Your task to perform on an android device: What's the weather? Image 0: 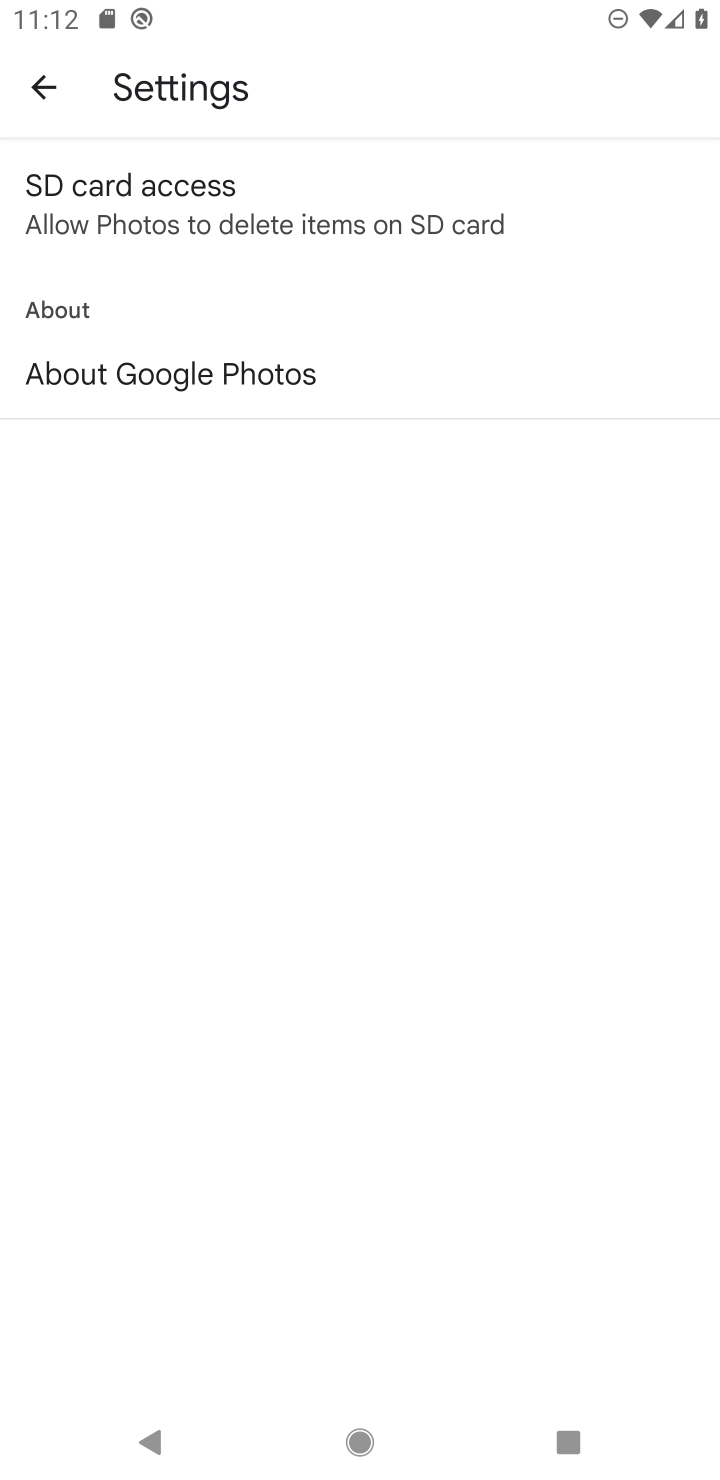
Step 0: click (437, 301)
Your task to perform on an android device: What's the weather? Image 1: 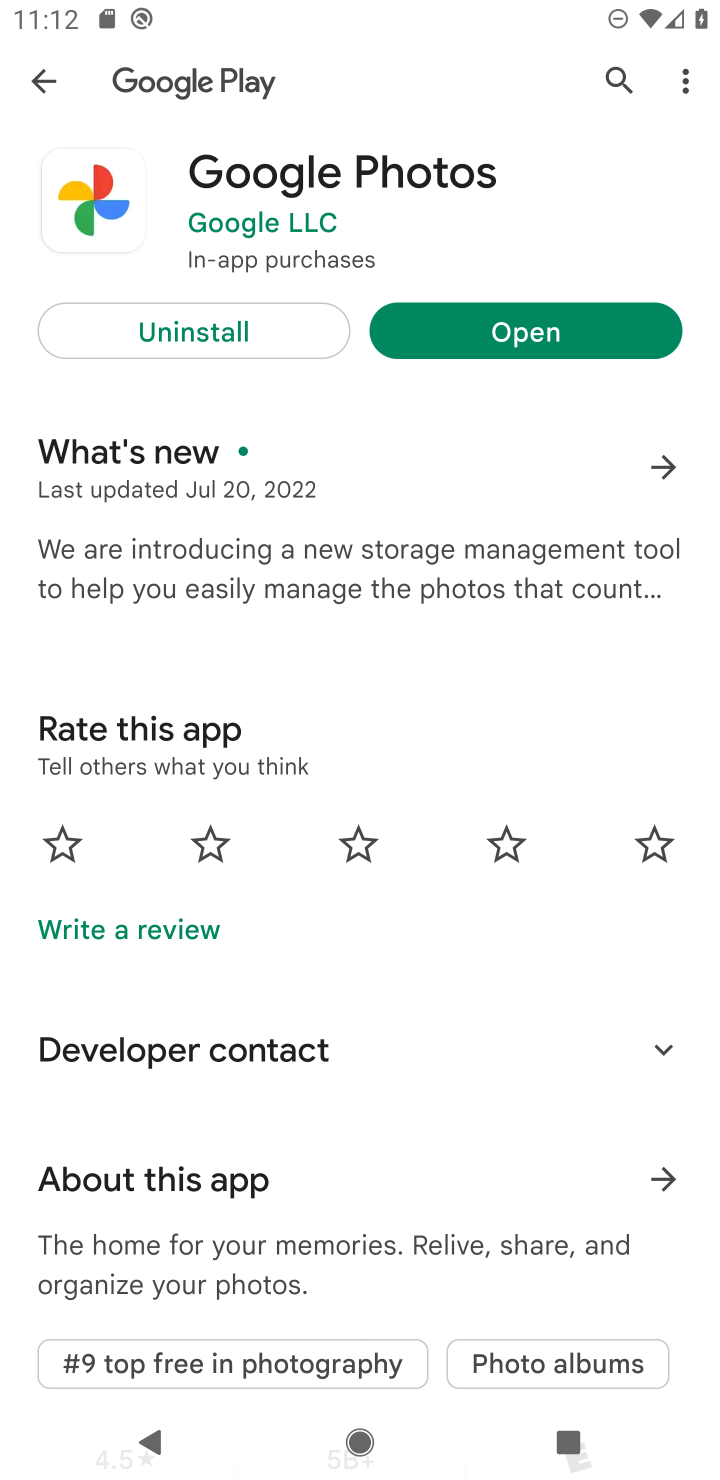
Step 1: drag from (446, 864) to (531, 282)
Your task to perform on an android device: What's the weather? Image 2: 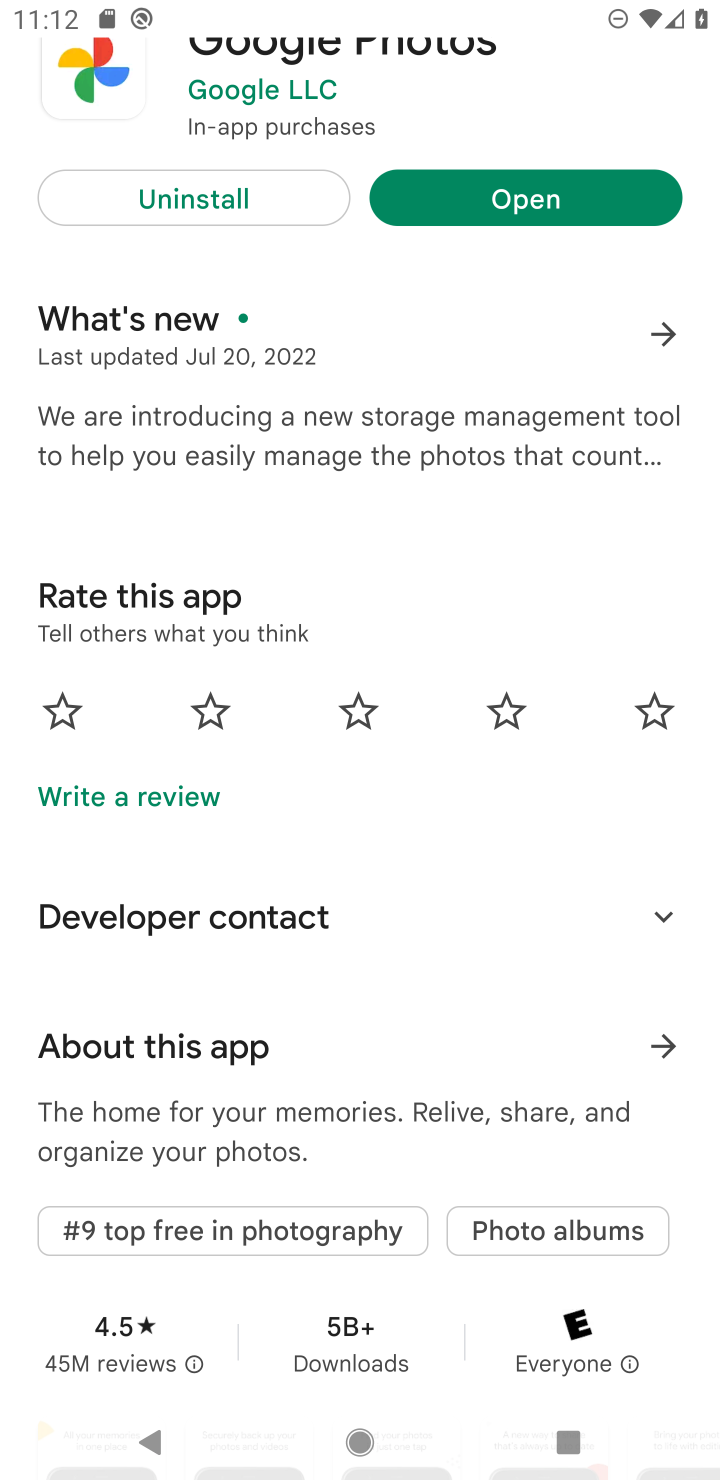
Step 2: drag from (363, 478) to (709, 1319)
Your task to perform on an android device: What's the weather? Image 3: 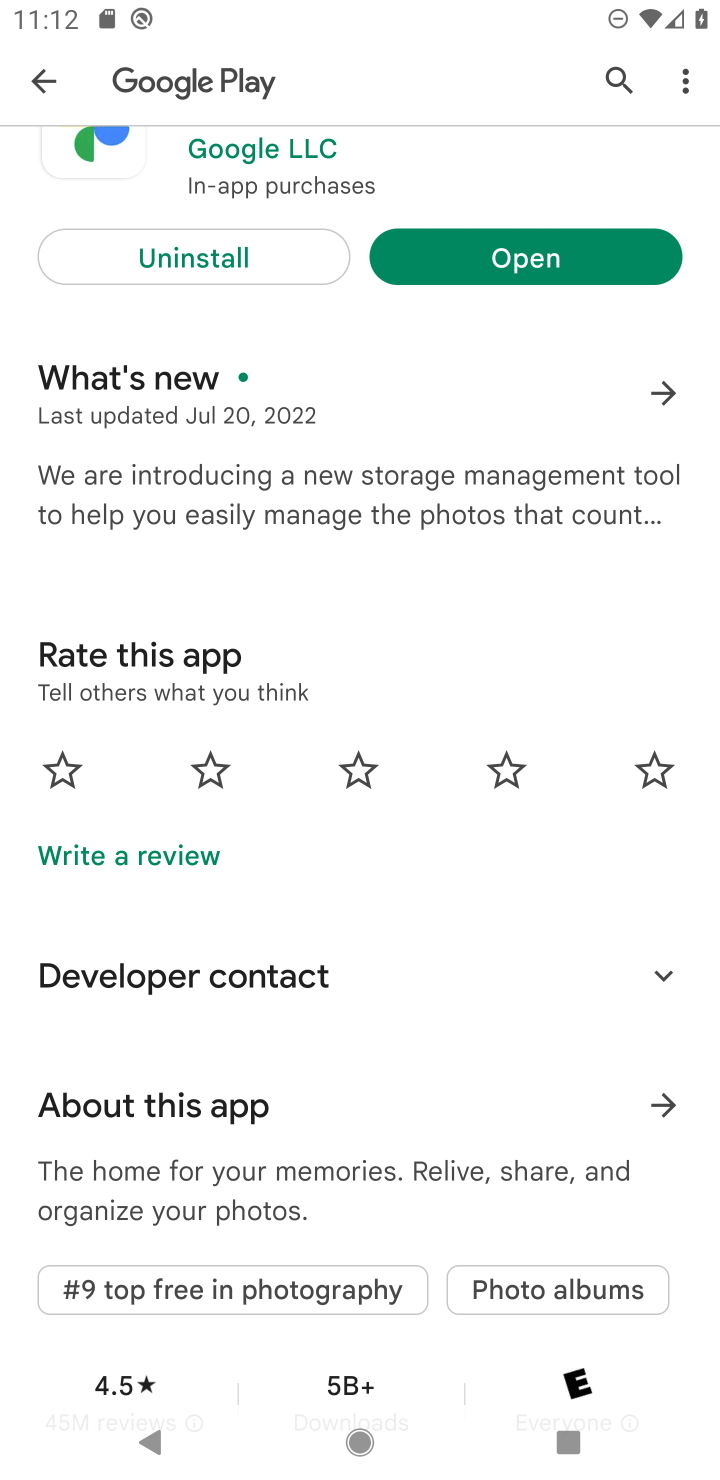
Step 3: press home button
Your task to perform on an android device: What's the weather? Image 4: 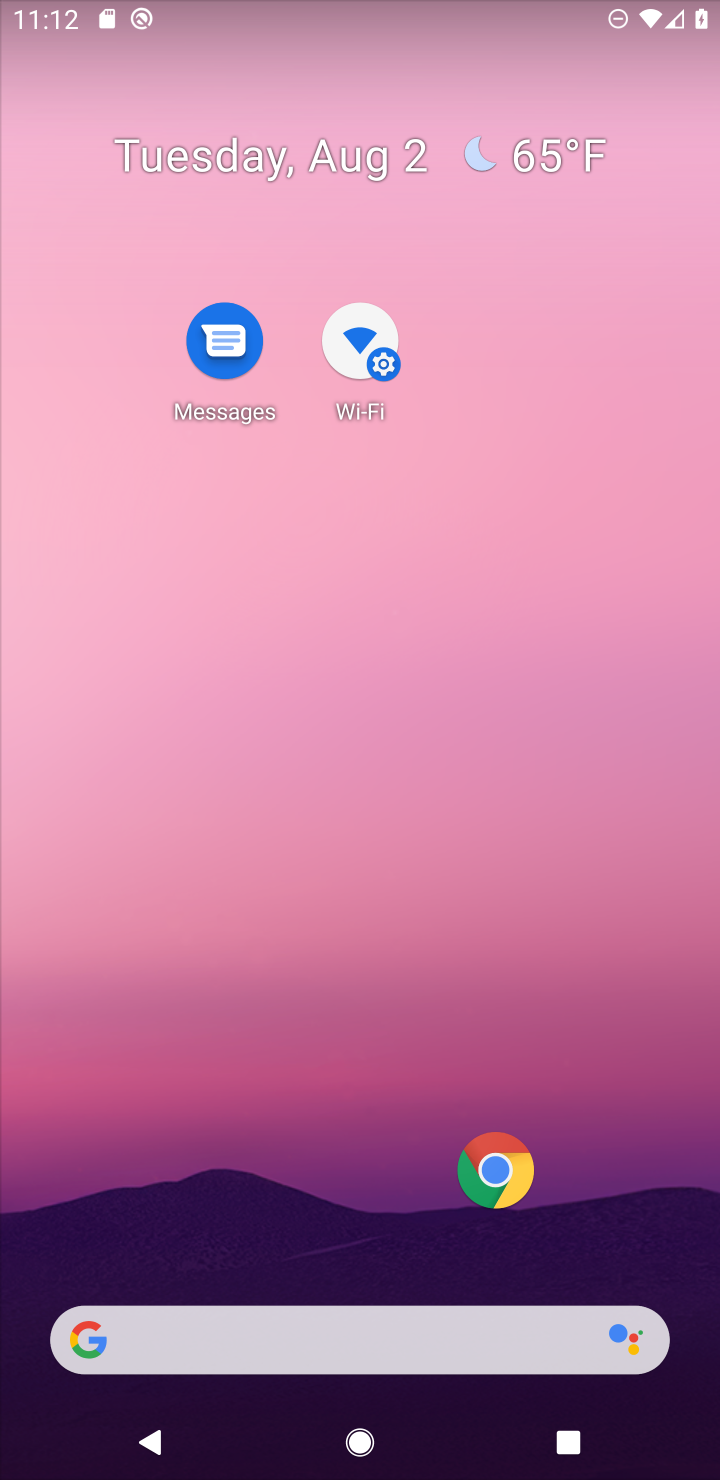
Step 4: drag from (303, 1195) to (247, 374)
Your task to perform on an android device: What's the weather? Image 5: 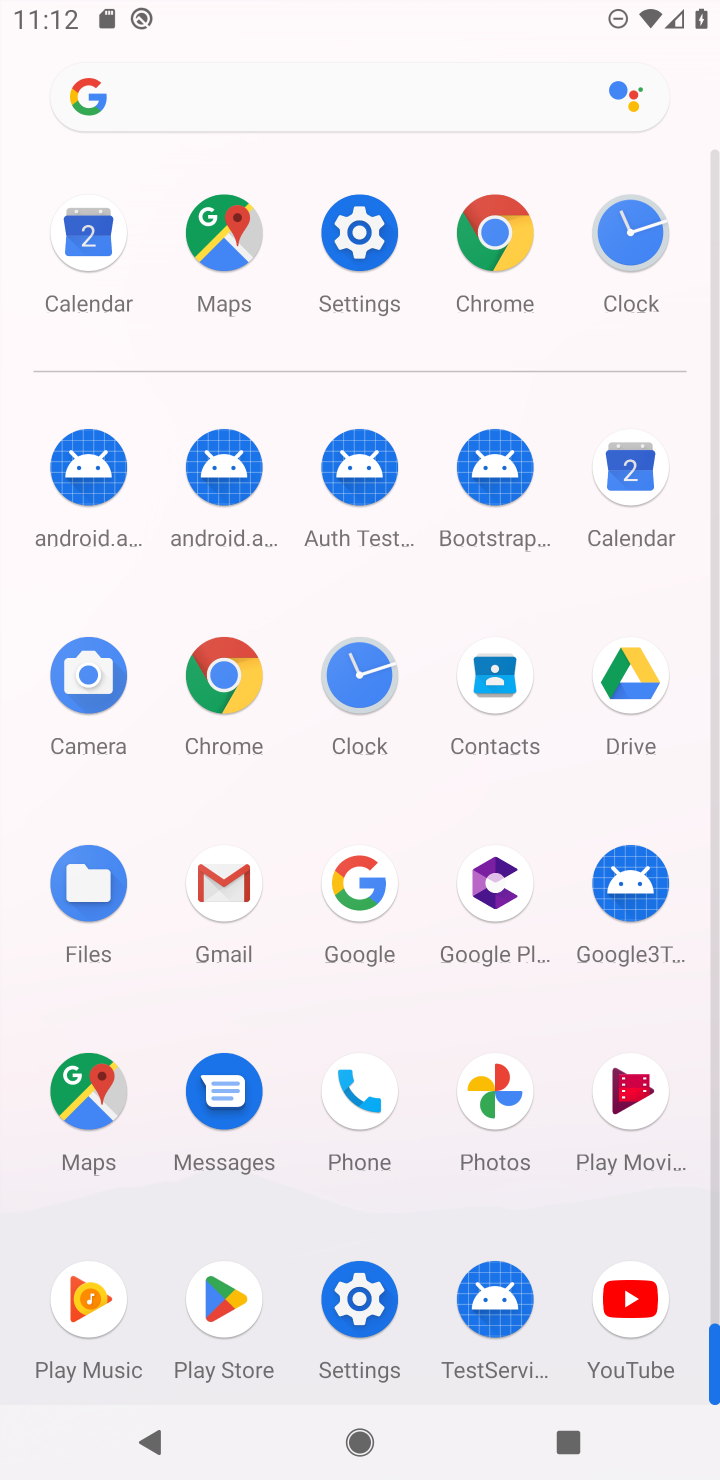
Step 5: click (264, 95)
Your task to perform on an android device: What's the weather? Image 6: 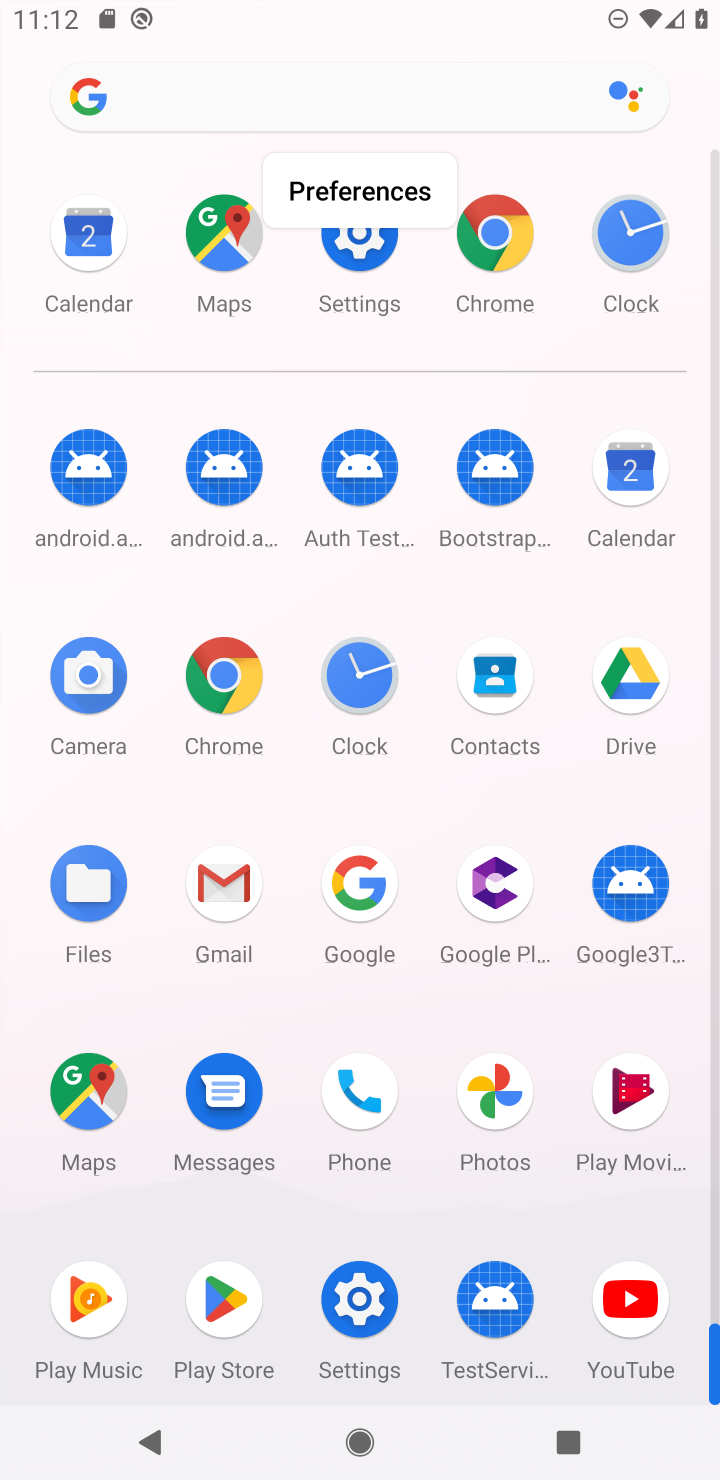
Step 6: click (300, 104)
Your task to perform on an android device: What's the weather? Image 7: 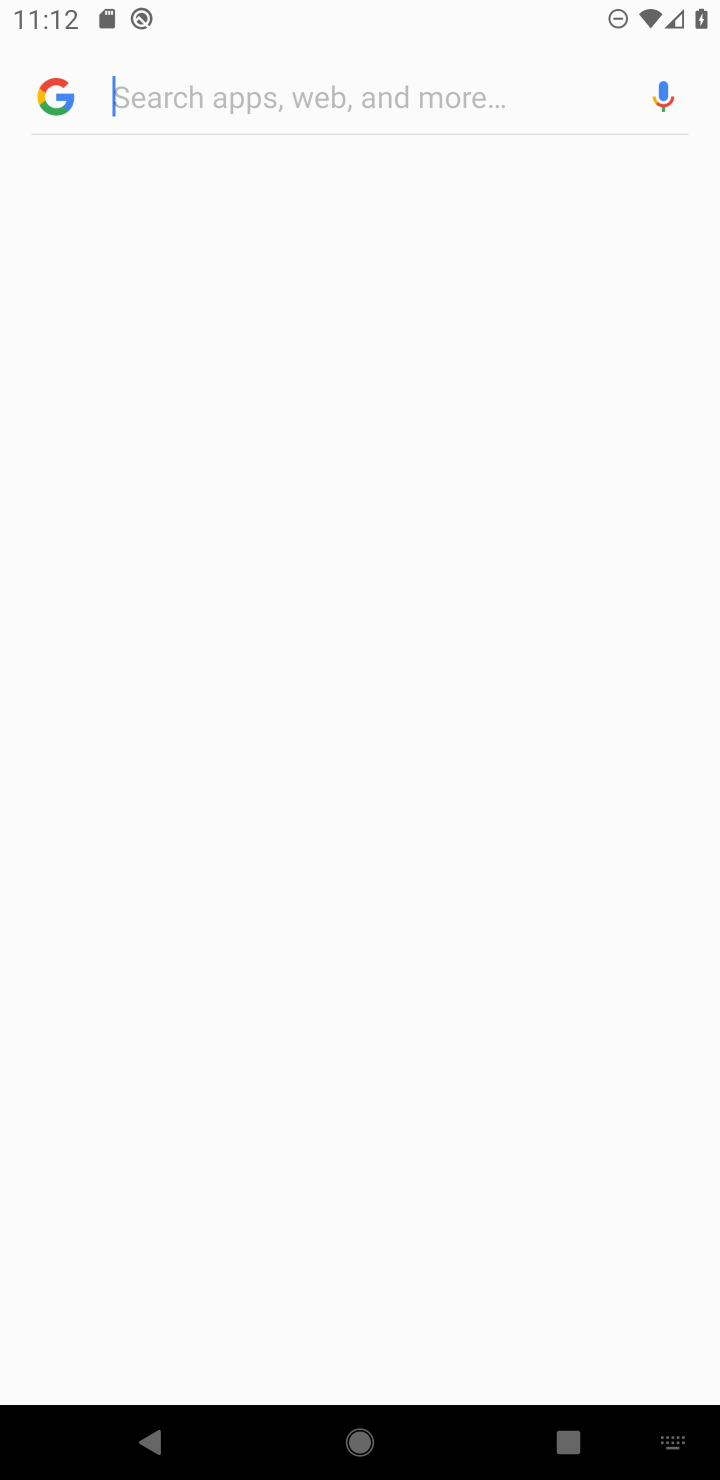
Step 7: click (287, 102)
Your task to perform on an android device: What's the weather? Image 8: 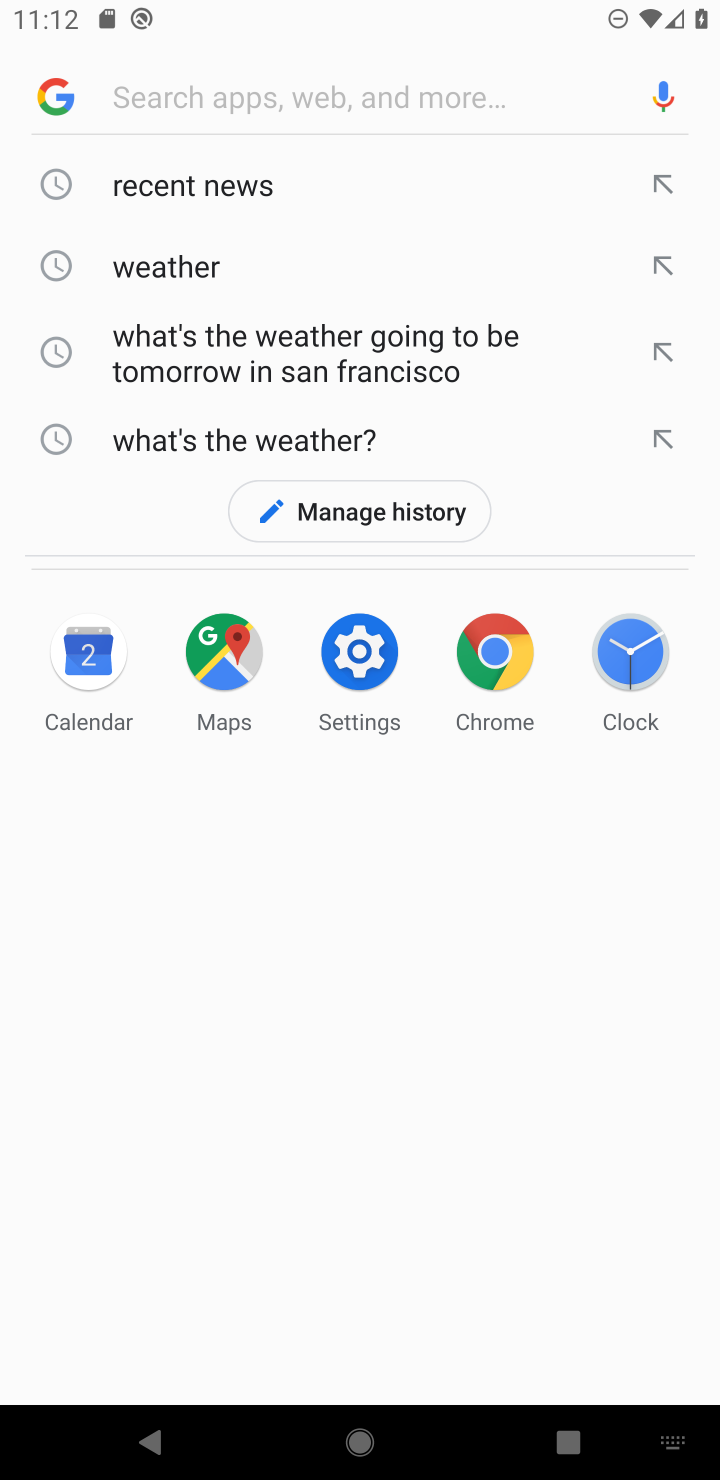
Step 8: click (275, 272)
Your task to perform on an android device: What's the weather? Image 9: 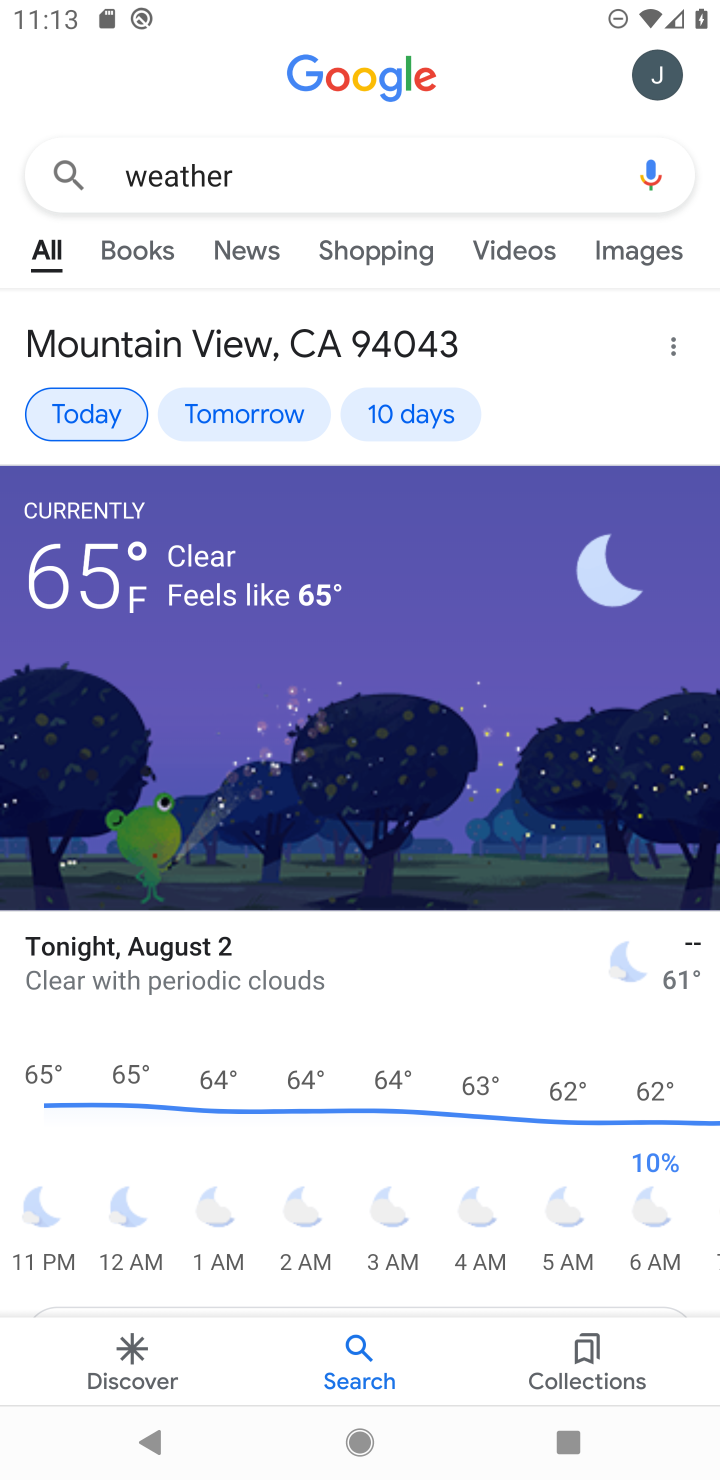
Step 9: task complete